Your task to perform on an android device: Open CNN.com Image 0: 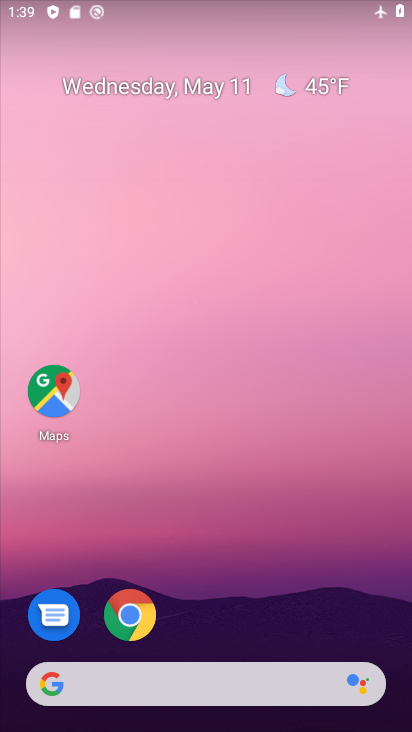
Step 0: click (132, 624)
Your task to perform on an android device: Open CNN.com Image 1: 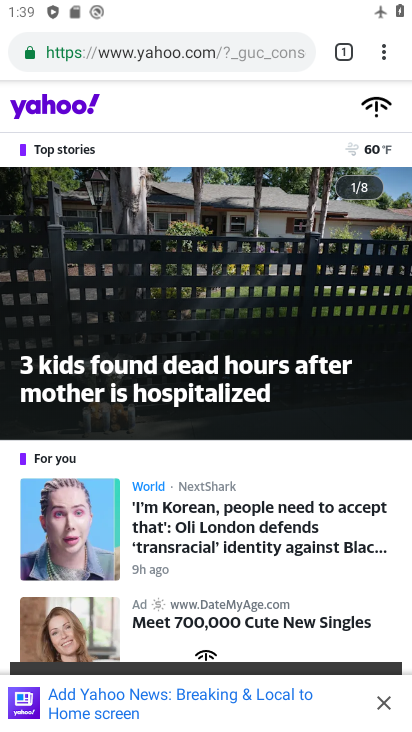
Step 1: click (147, 59)
Your task to perform on an android device: Open CNN.com Image 2: 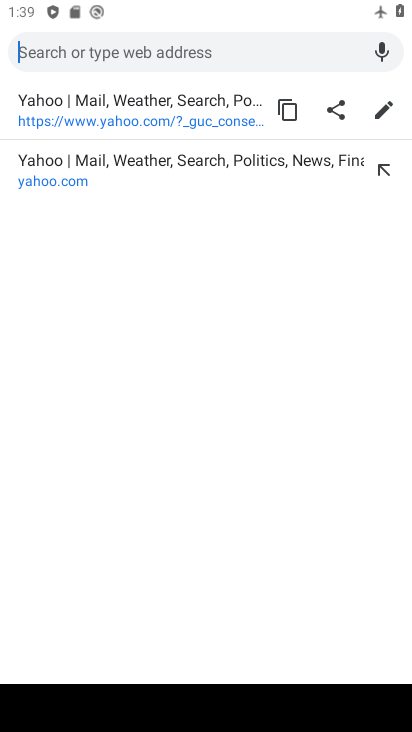
Step 2: type "cnn.com"
Your task to perform on an android device: Open CNN.com Image 3: 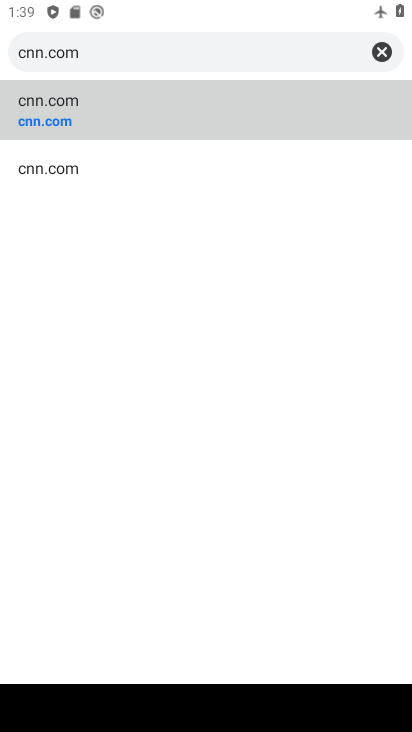
Step 3: click (88, 138)
Your task to perform on an android device: Open CNN.com Image 4: 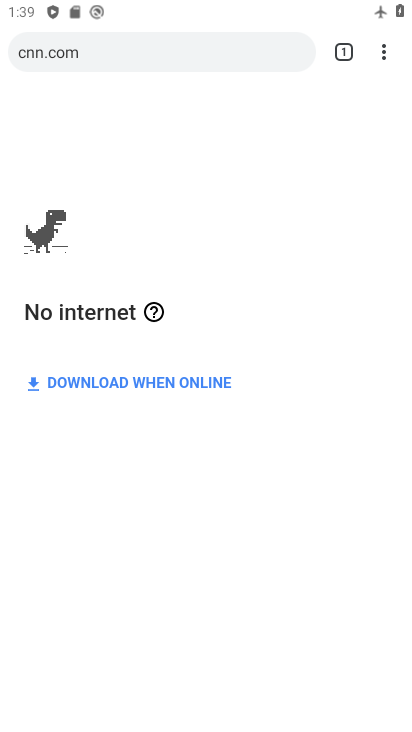
Step 4: task complete